Your task to perform on an android device: change the clock display to show seconds Image 0: 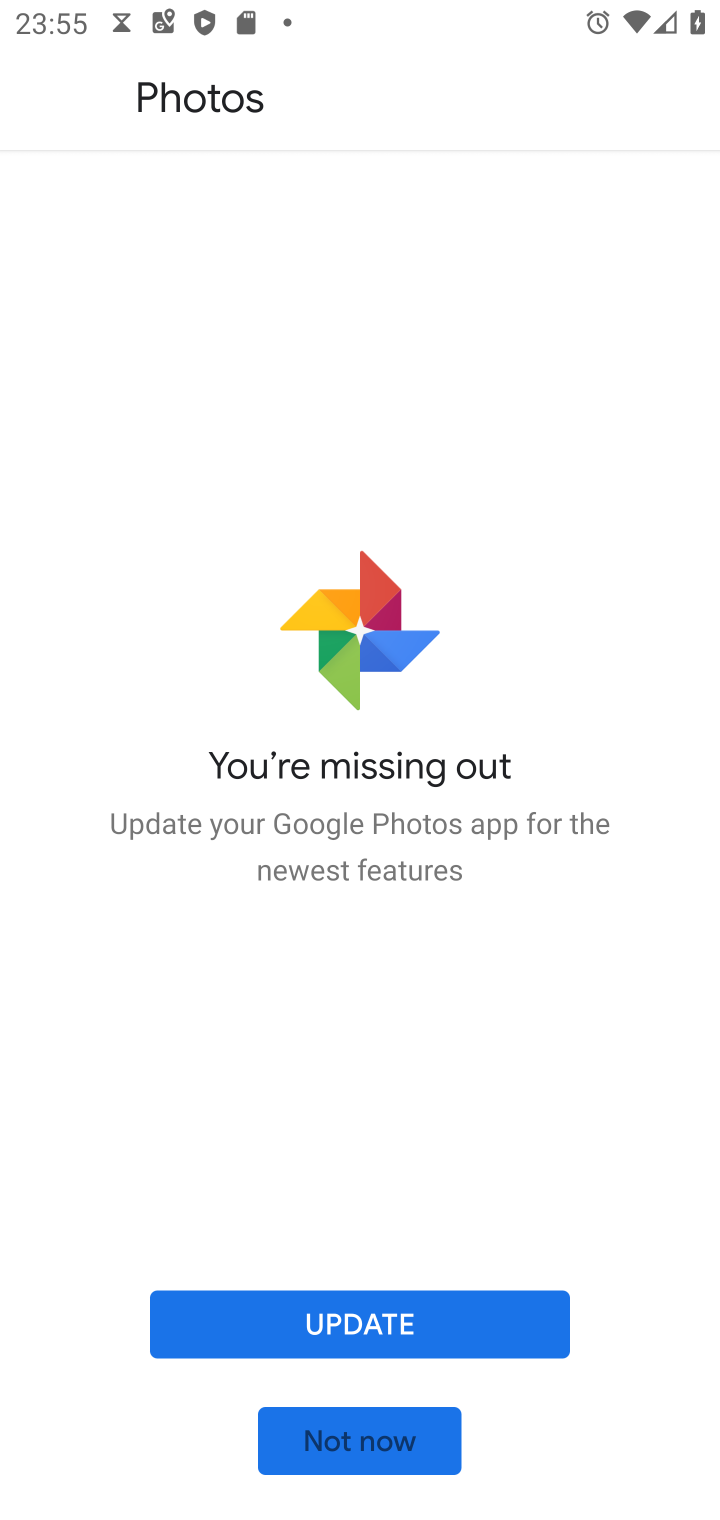
Step 0: press home button
Your task to perform on an android device: change the clock display to show seconds Image 1: 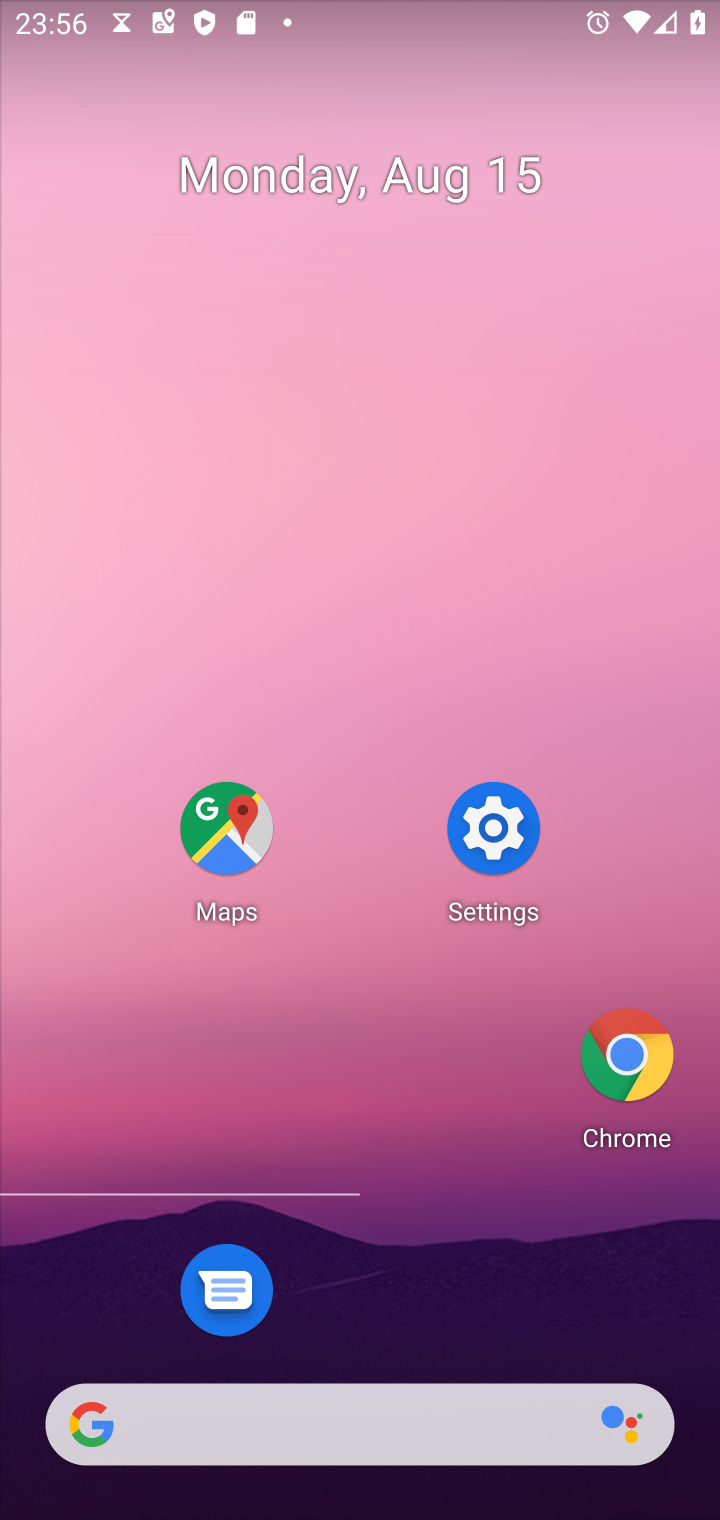
Step 1: drag from (609, 677) to (698, 280)
Your task to perform on an android device: change the clock display to show seconds Image 2: 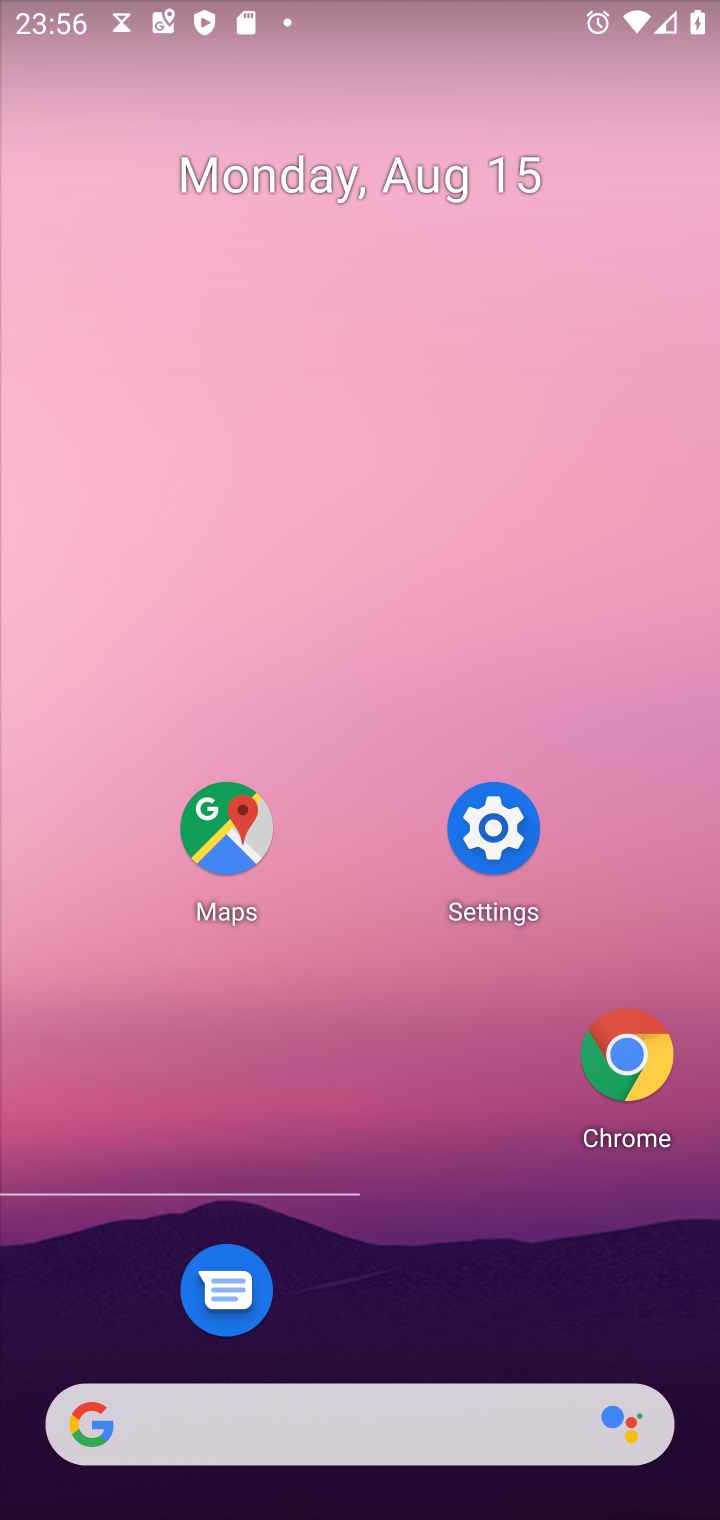
Step 2: drag from (527, 853) to (637, 416)
Your task to perform on an android device: change the clock display to show seconds Image 3: 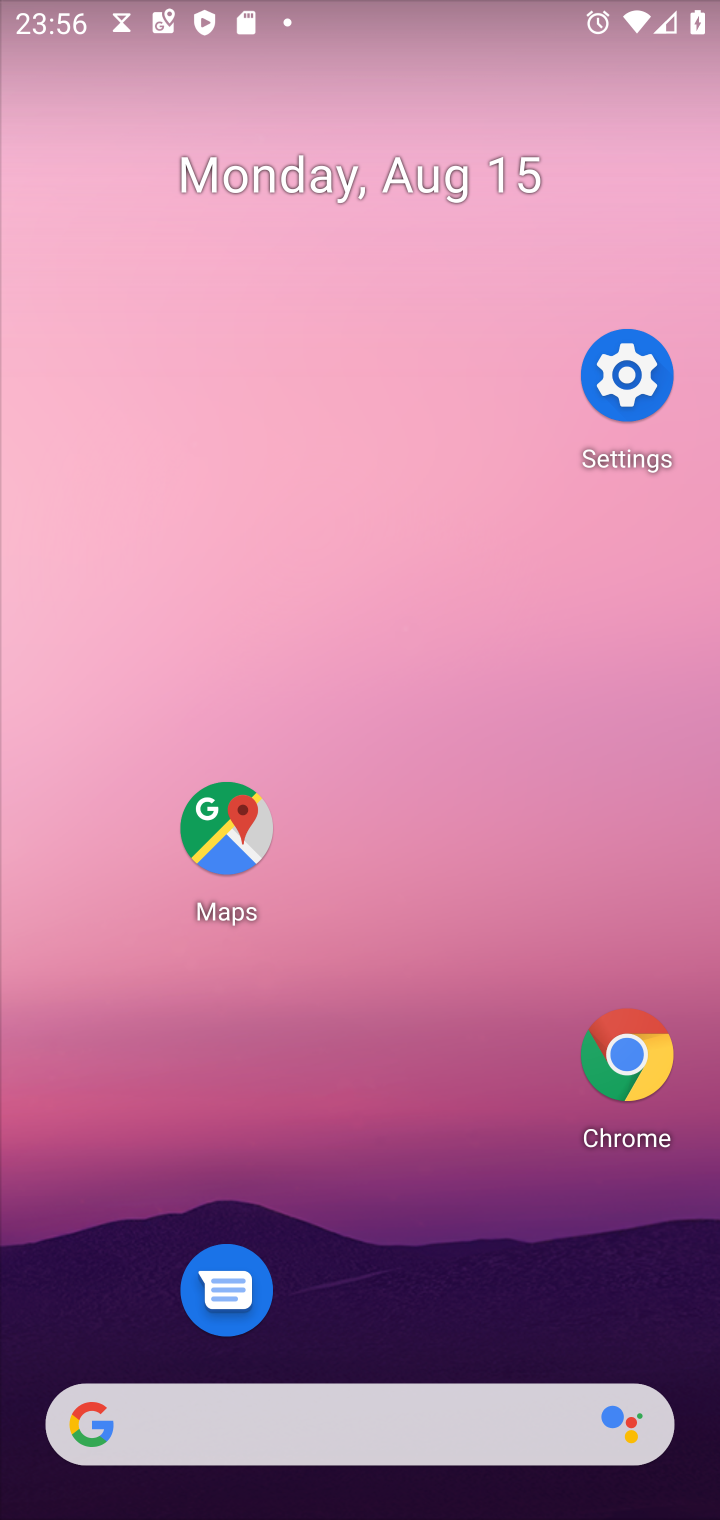
Step 3: drag from (631, 354) to (590, 836)
Your task to perform on an android device: change the clock display to show seconds Image 4: 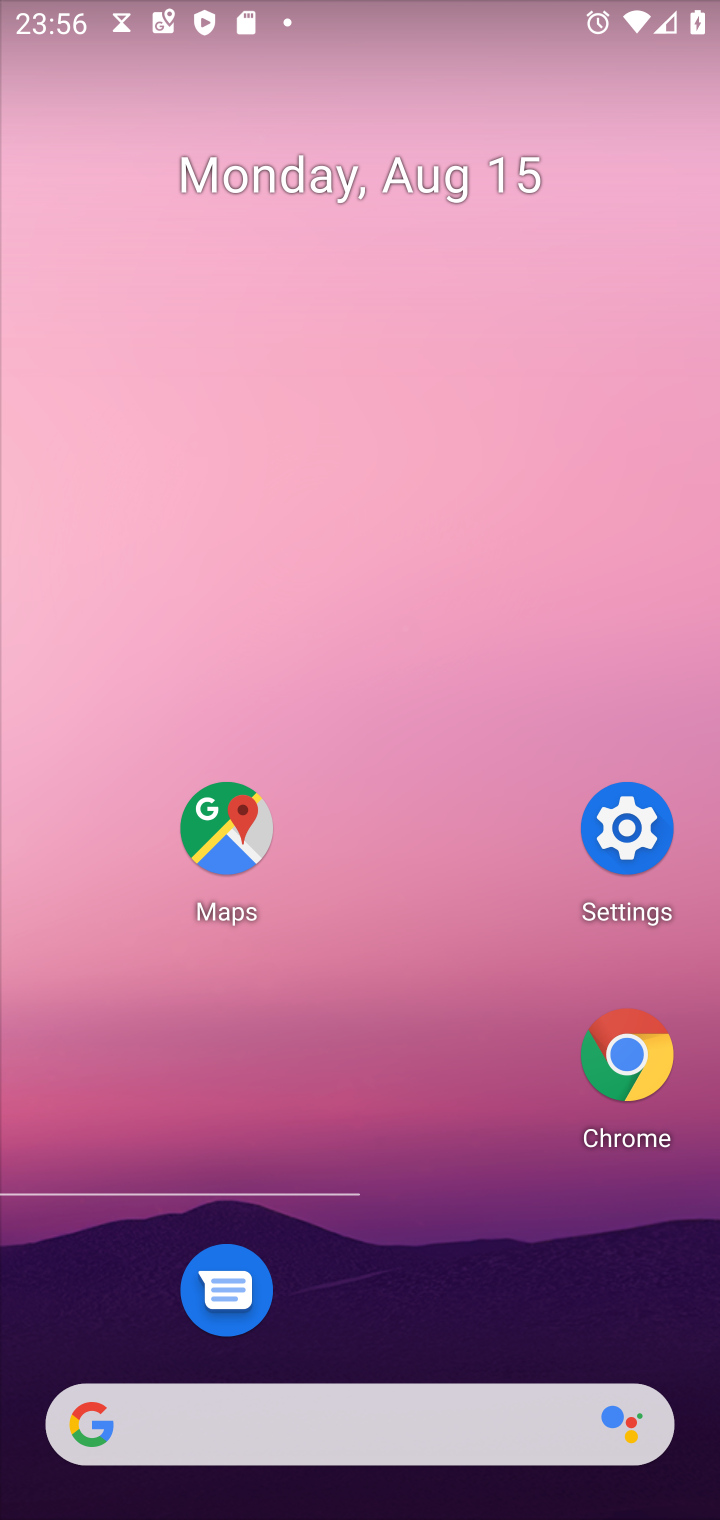
Step 4: drag from (506, 812) to (636, 48)
Your task to perform on an android device: change the clock display to show seconds Image 5: 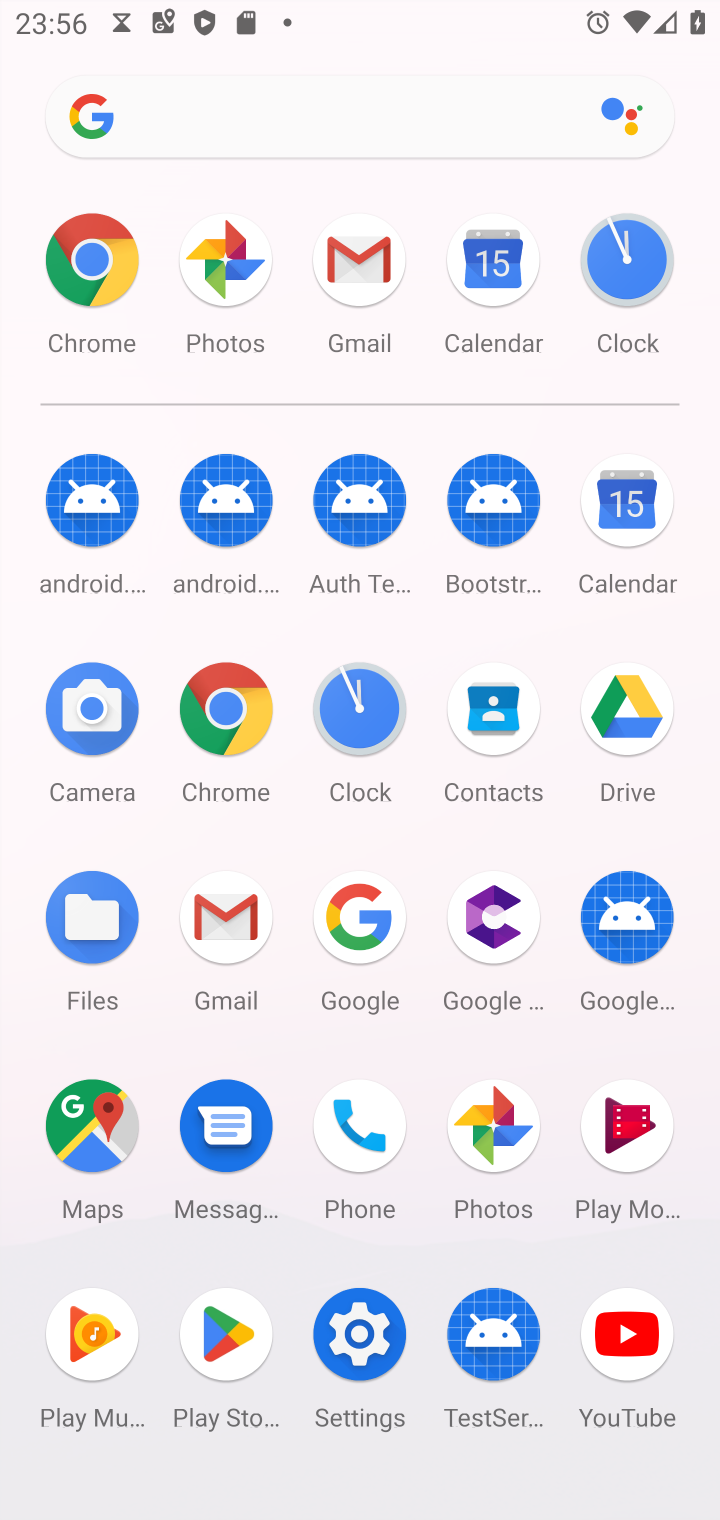
Step 5: click (631, 256)
Your task to perform on an android device: change the clock display to show seconds Image 6: 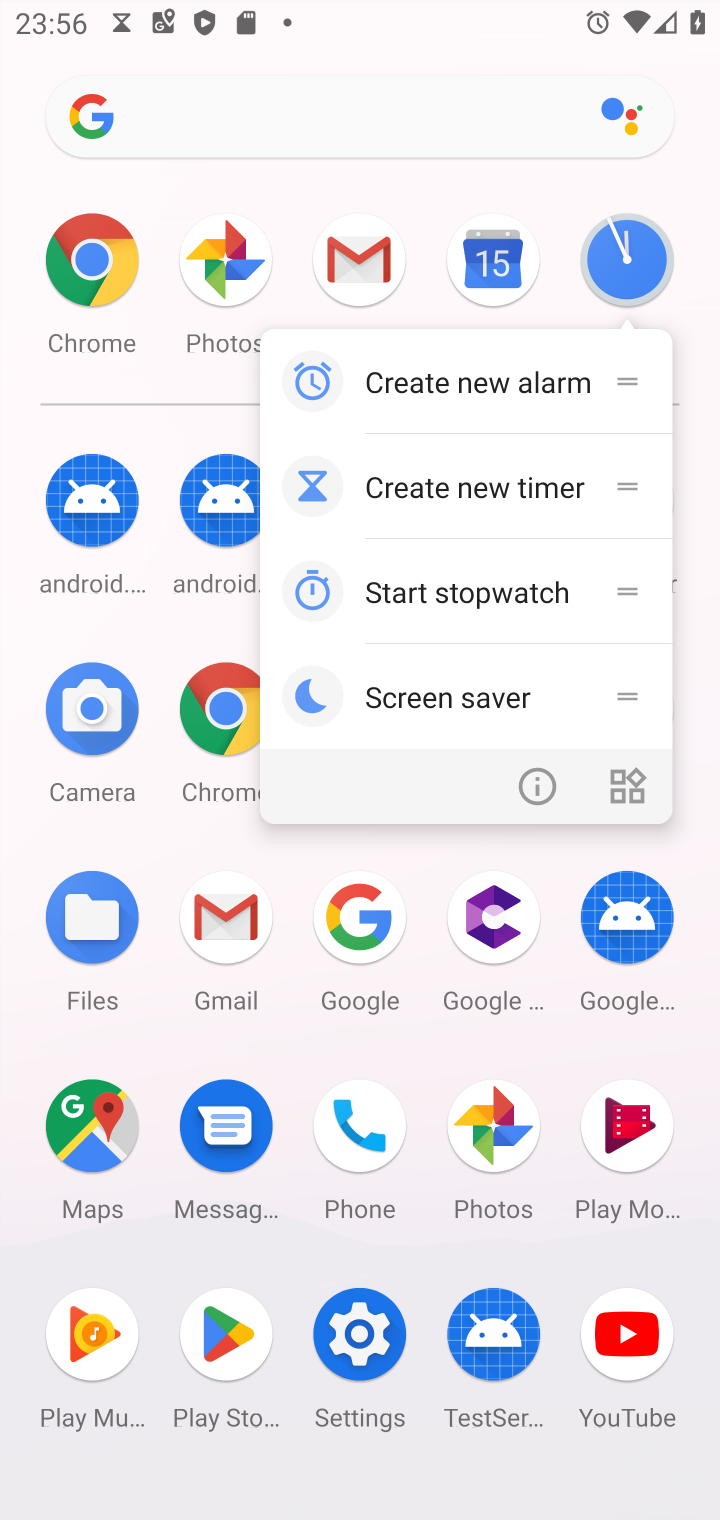
Step 6: click (631, 256)
Your task to perform on an android device: change the clock display to show seconds Image 7: 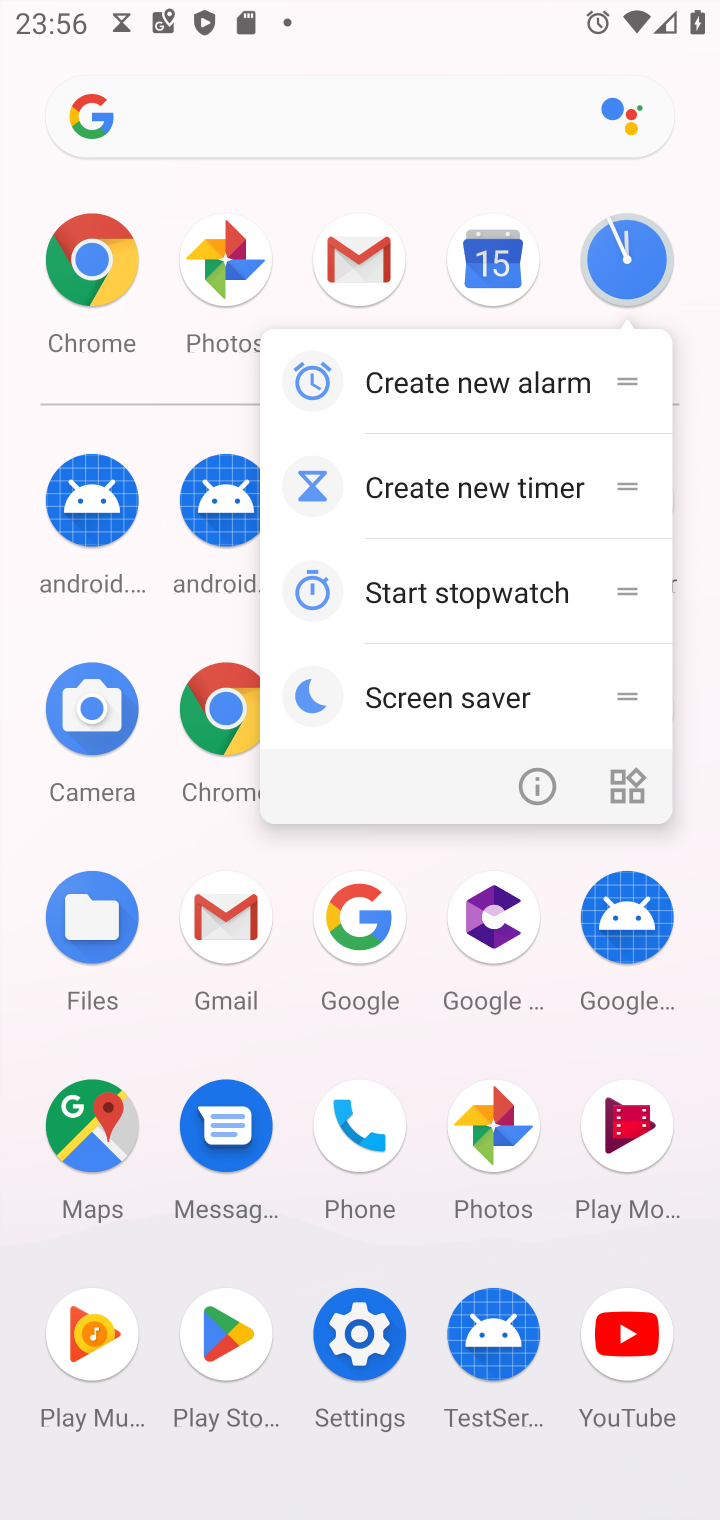
Step 7: click (631, 266)
Your task to perform on an android device: change the clock display to show seconds Image 8: 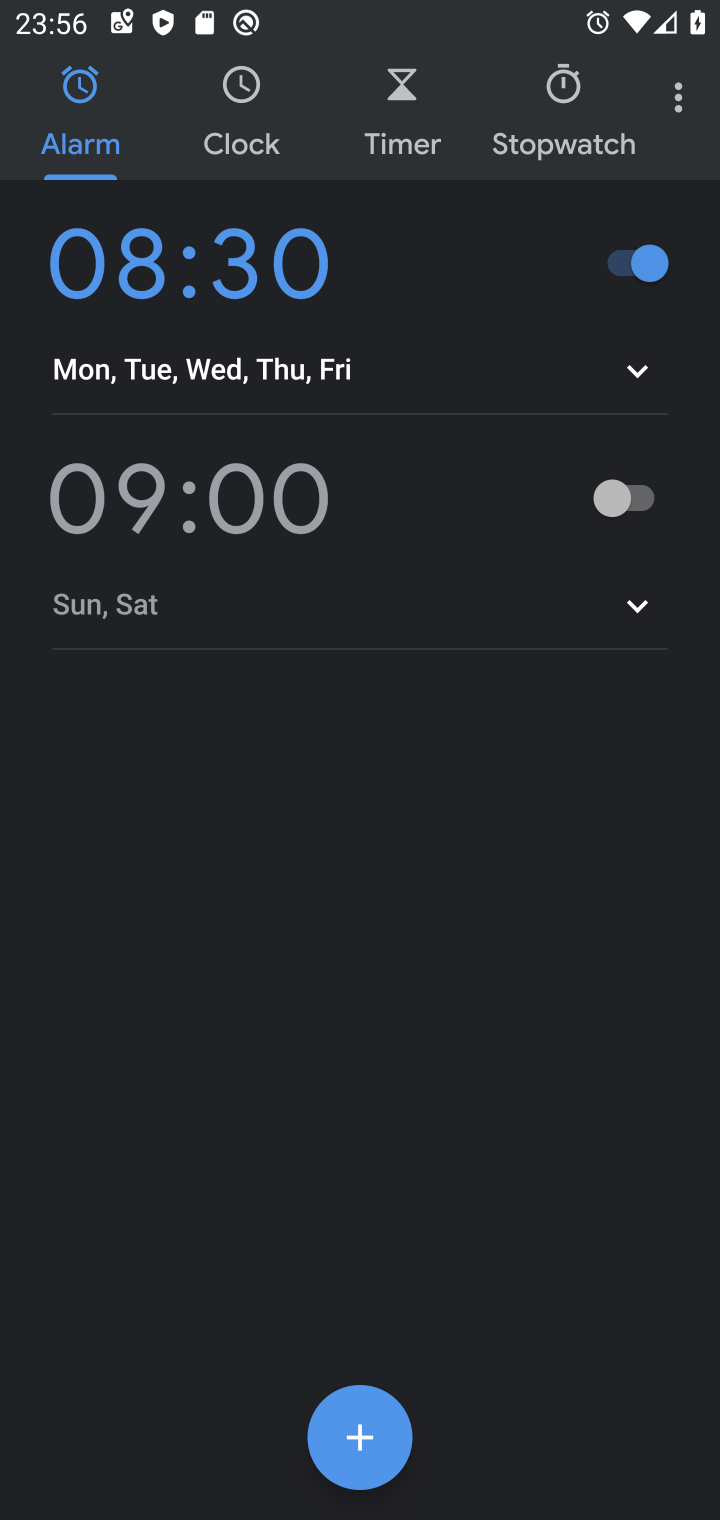
Step 8: click (684, 106)
Your task to perform on an android device: change the clock display to show seconds Image 9: 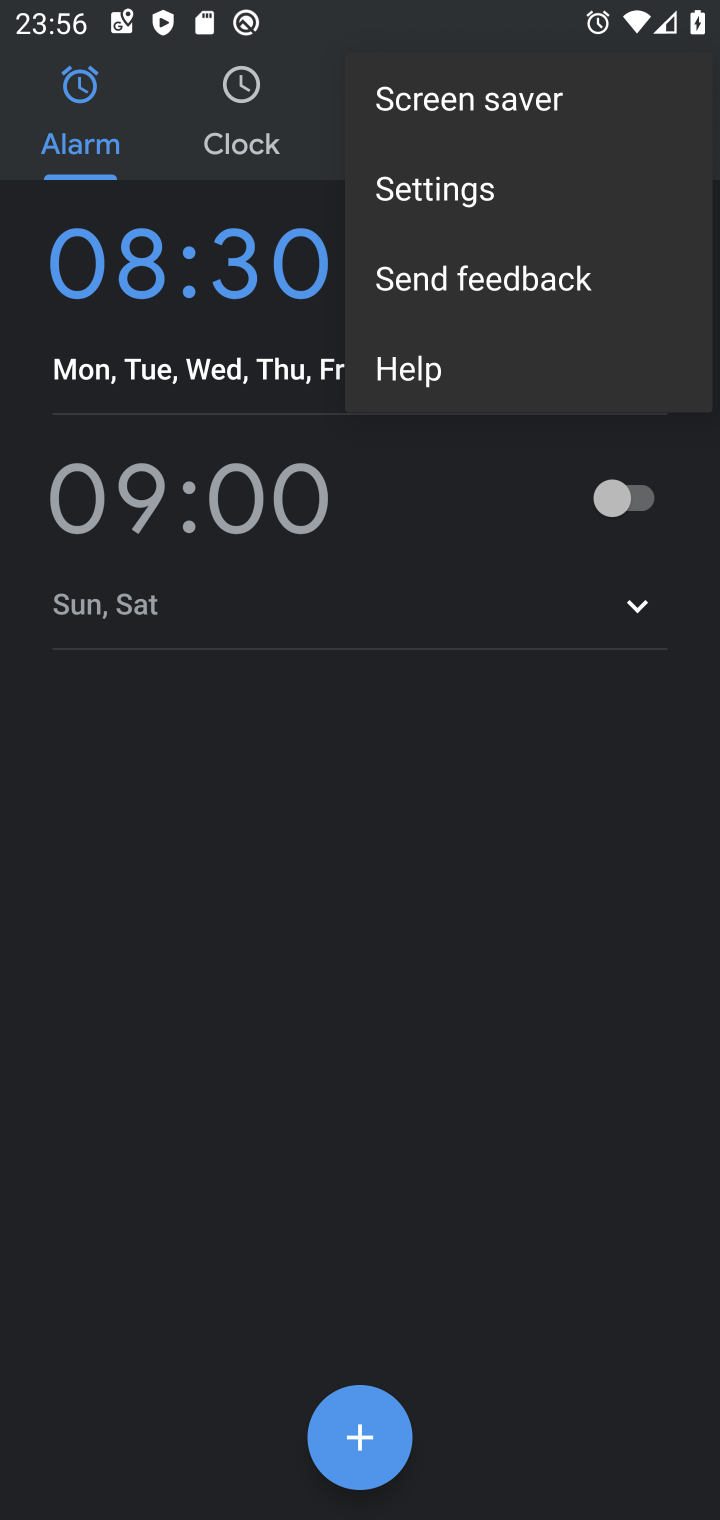
Step 9: click (421, 186)
Your task to perform on an android device: change the clock display to show seconds Image 10: 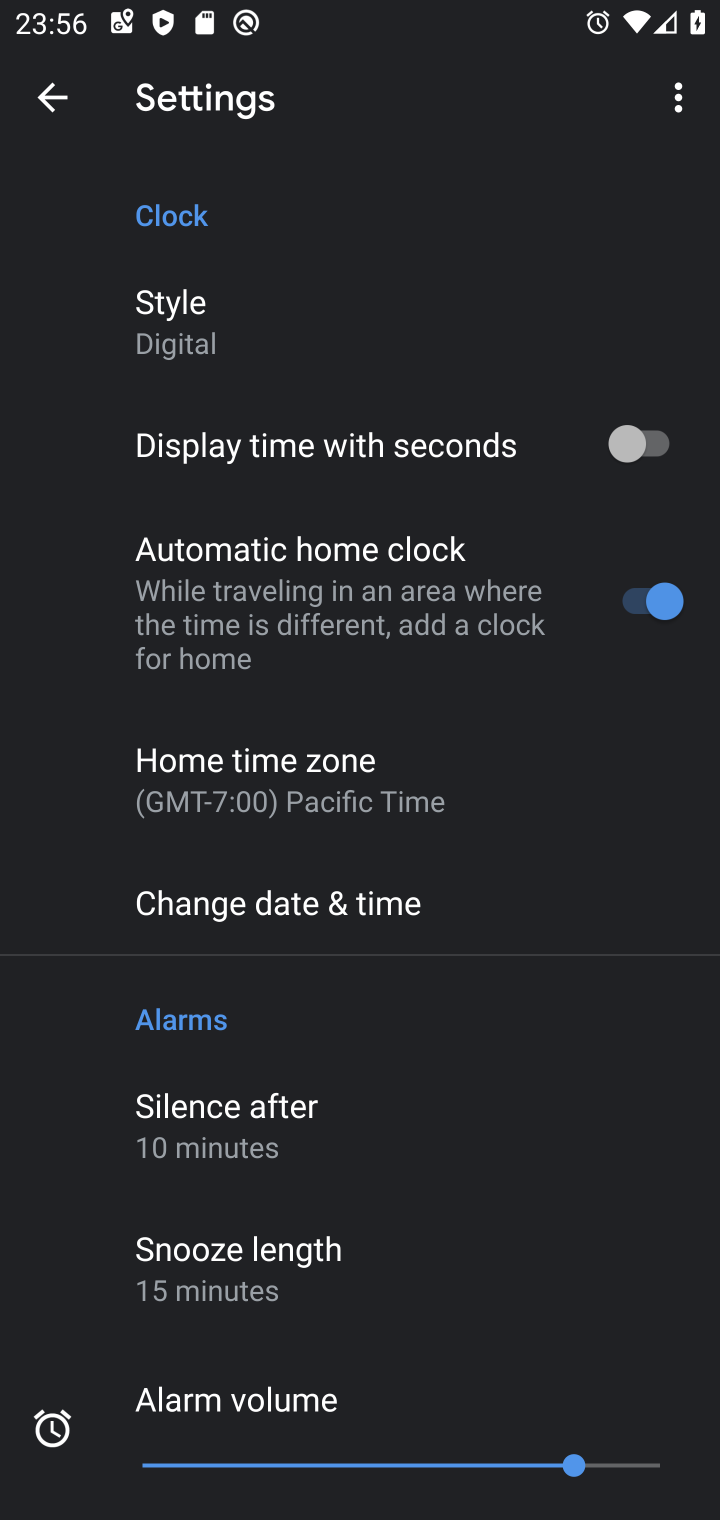
Step 10: click (657, 443)
Your task to perform on an android device: change the clock display to show seconds Image 11: 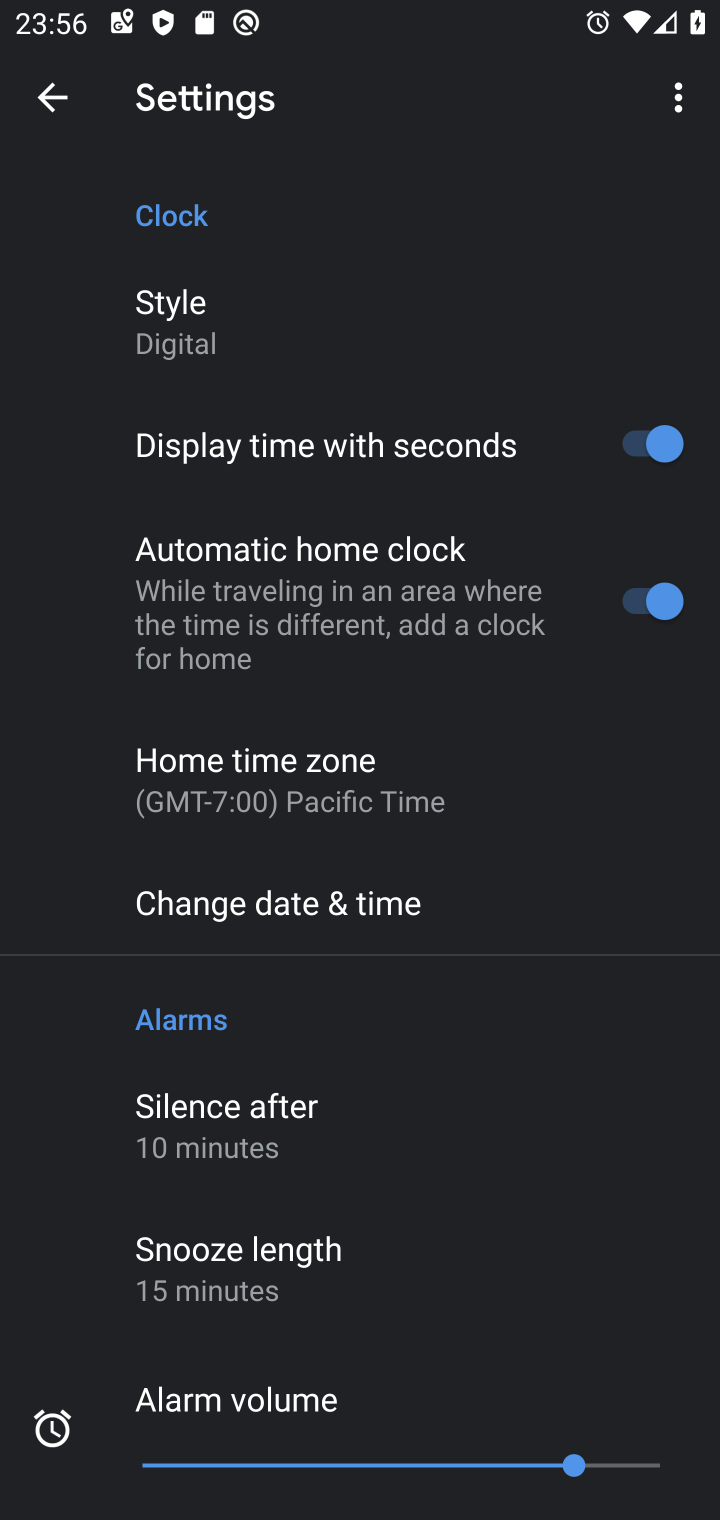
Step 11: task complete